Your task to perform on an android device: turn pop-ups off in chrome Image 0: 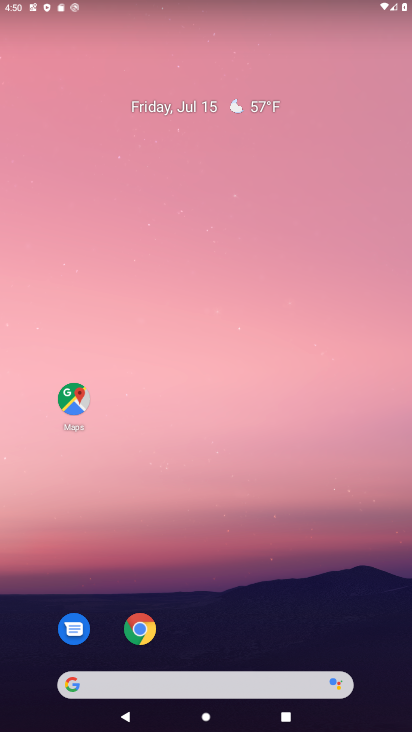
Step 0: drag from (226, 622) to (234, 57)
Your task to perform on an android device: turn pop-ups off in chrome Image 1: 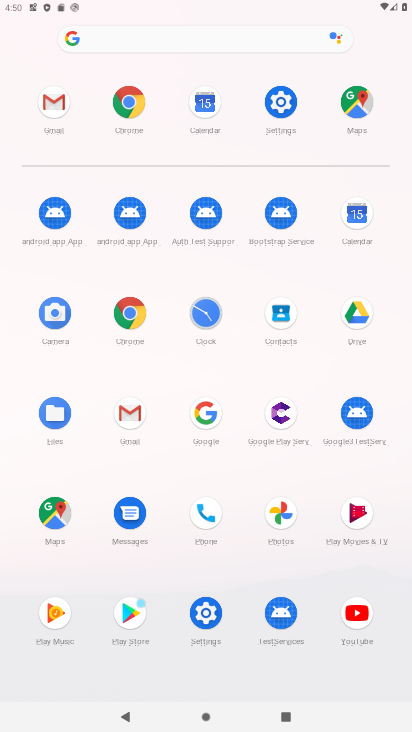
Step 1: click (127, 108)
Your task to perform on an android device: turn pop-ups off in chrome Image 2: 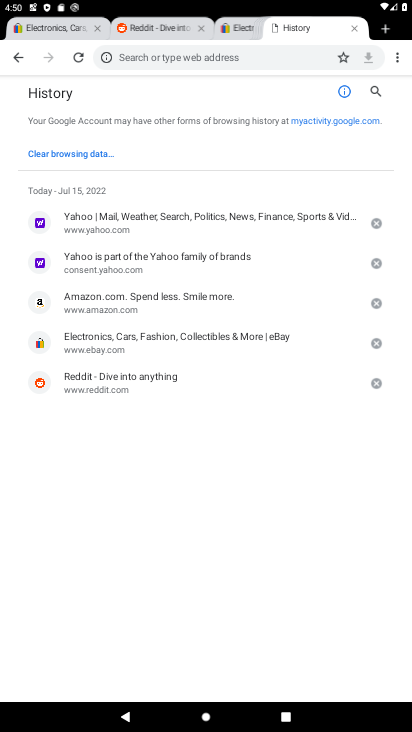
Step 2: drag from (395, 59) to (297, 261)
Your task to perform on an android device: turn pop-ups off in chrome Image 3: 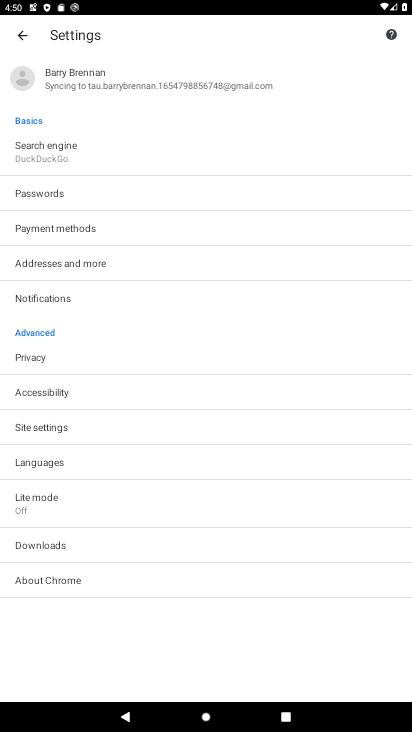
Step 3: click (27, 425)
Your task to perform on an android device: turn pop-ups off in chrome Image 4: 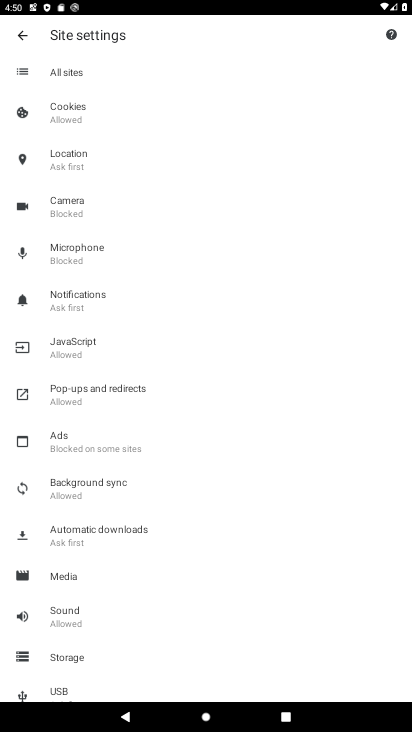
Step 4: click (89, 391)
Your task to perform on an android device: turn pop-ups off in chrome Image 5: 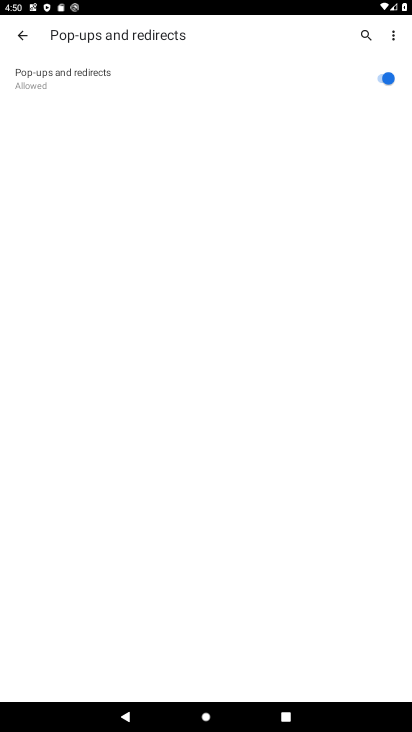
Step 5: click (389, 76)
Your task to perform on an android device: turn pop-ups off in chrome Image 6: 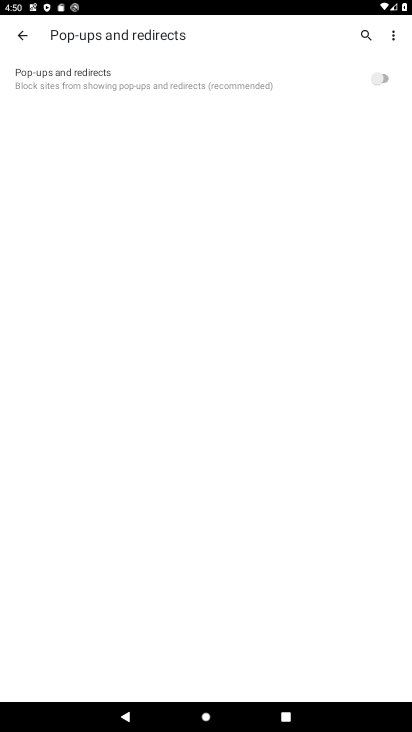
Step 6: task complete